Your task to perform on an android device: set the timer Image 0: 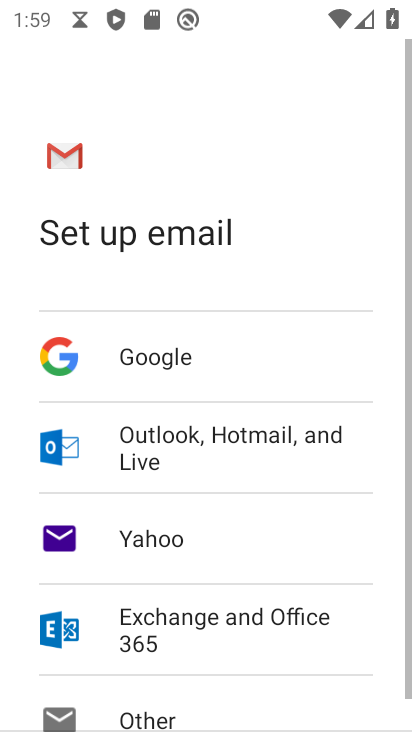
Step 0: press home button
Your task to perform on an android device: set the timer Image 1: 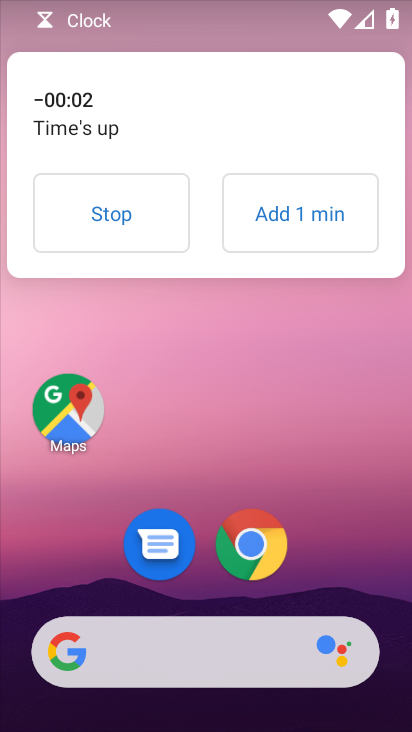
Step 1: click (111, 230)
Your task to perform on an android device: set the timer Image 2: 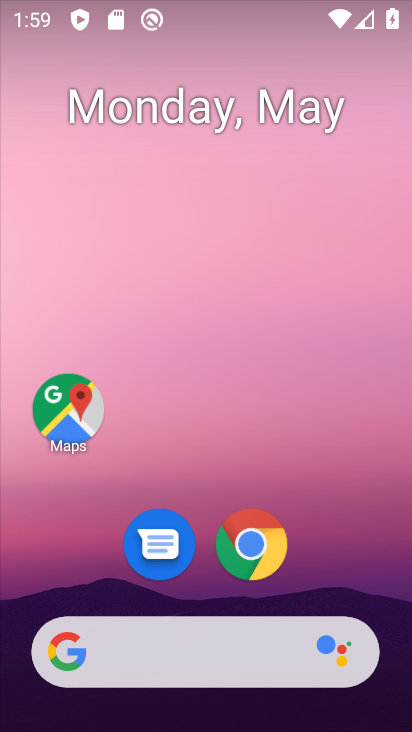
Step 2: drag from (200, 584) to (213, 238)
Your task to perform on an android device: set the timer Image 3: 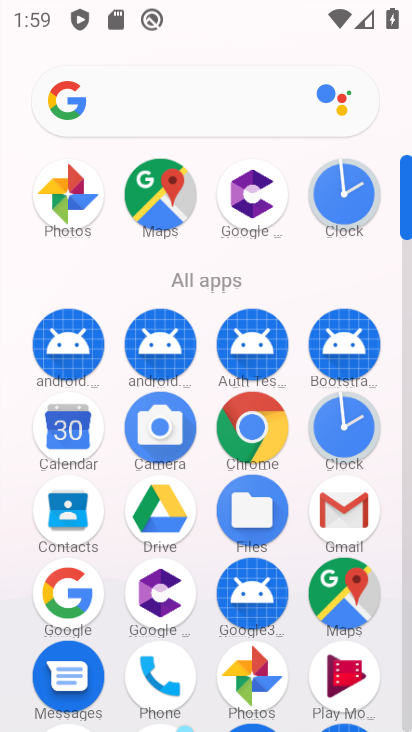
Step 3: click (316, 208)
Your task to perform on an android device: set the timer Image 4: 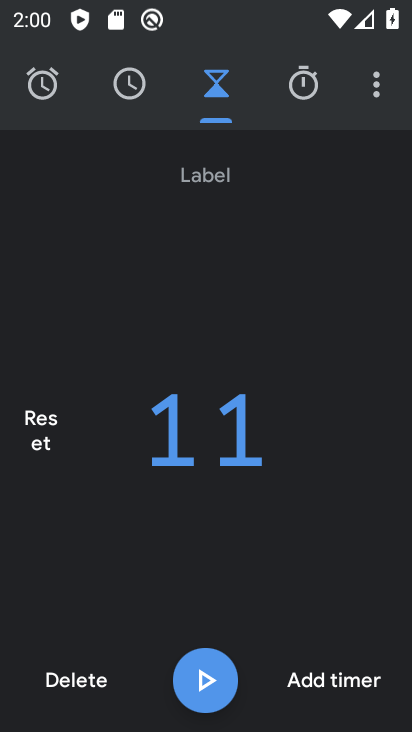
Step 4: click (207, 656)
Your task to perform on an android device: set the timer Image 5: 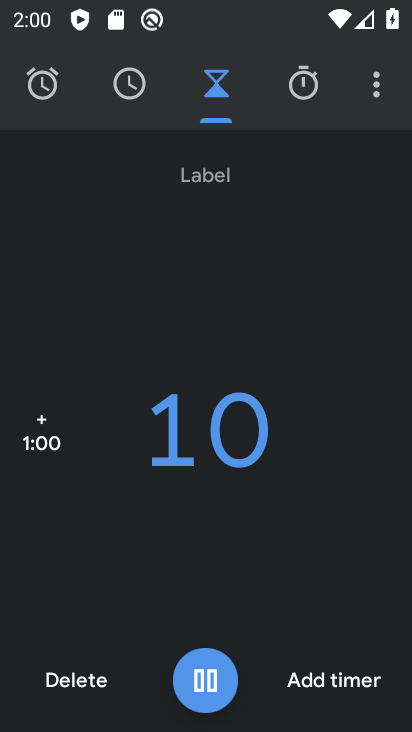
Step 5: task complete